Your task to perform on an android device: Open the map Image 0: 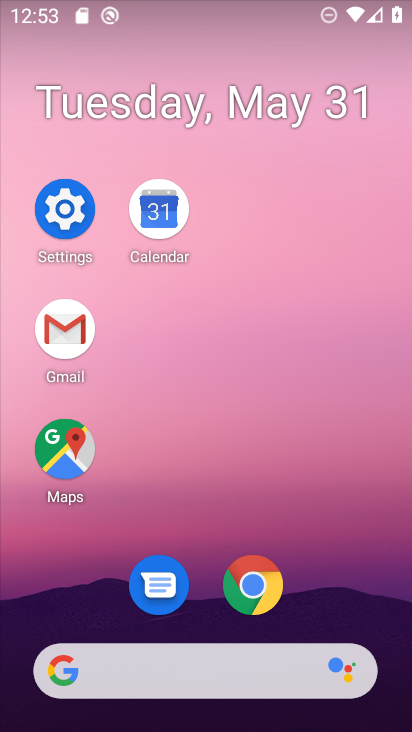
Step 0: click (77, 469)
Your task to perform on an android device: Open the map Image 1: 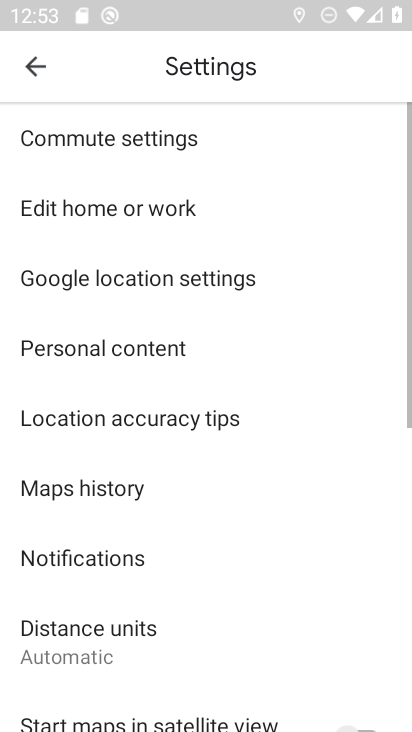
Step 1: task complete